Your task to perform on an android device: Go to Yahoo.com Image 0: 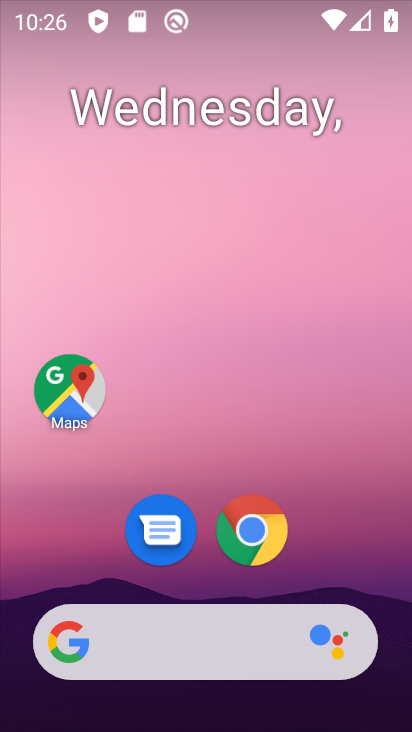
Step 0: click (246, 541)
Your task to perform on an android device: Go to Yahoo.com Image 1: 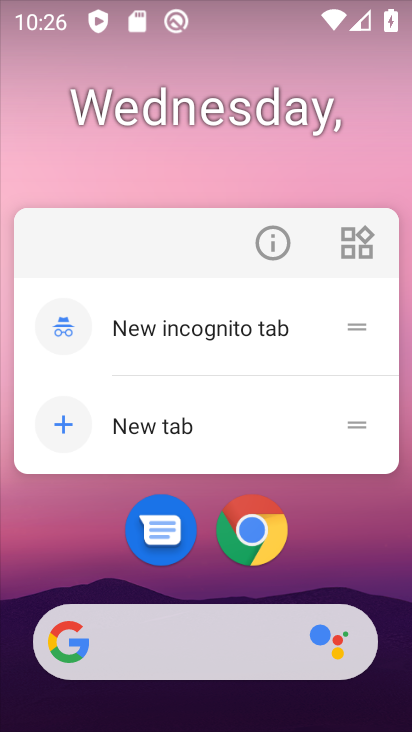
Step 1: click (251, 539)
Your task to perform on an android device: Go to Yahoo.com Image 2: 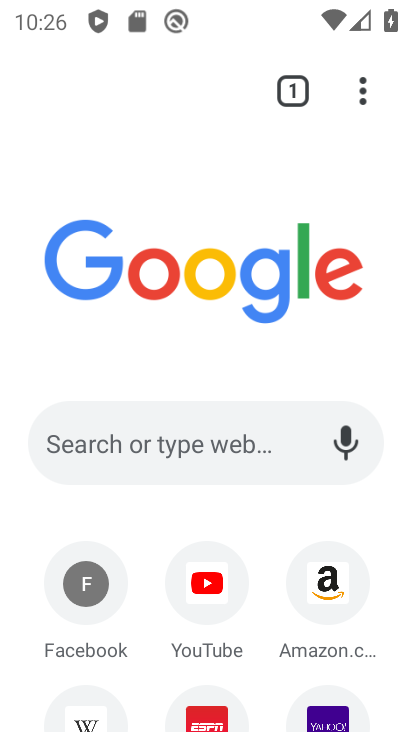
Step 2: click (342, 717)
Your task to perform on an android device: Go to Yahoo.com Image 3: 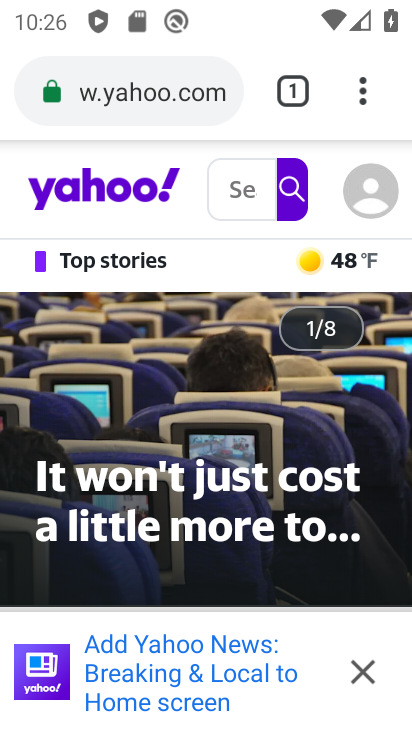
Step 3: task complete